Your task to perform on an android device: Check the settings for the YouTube app Image 0: 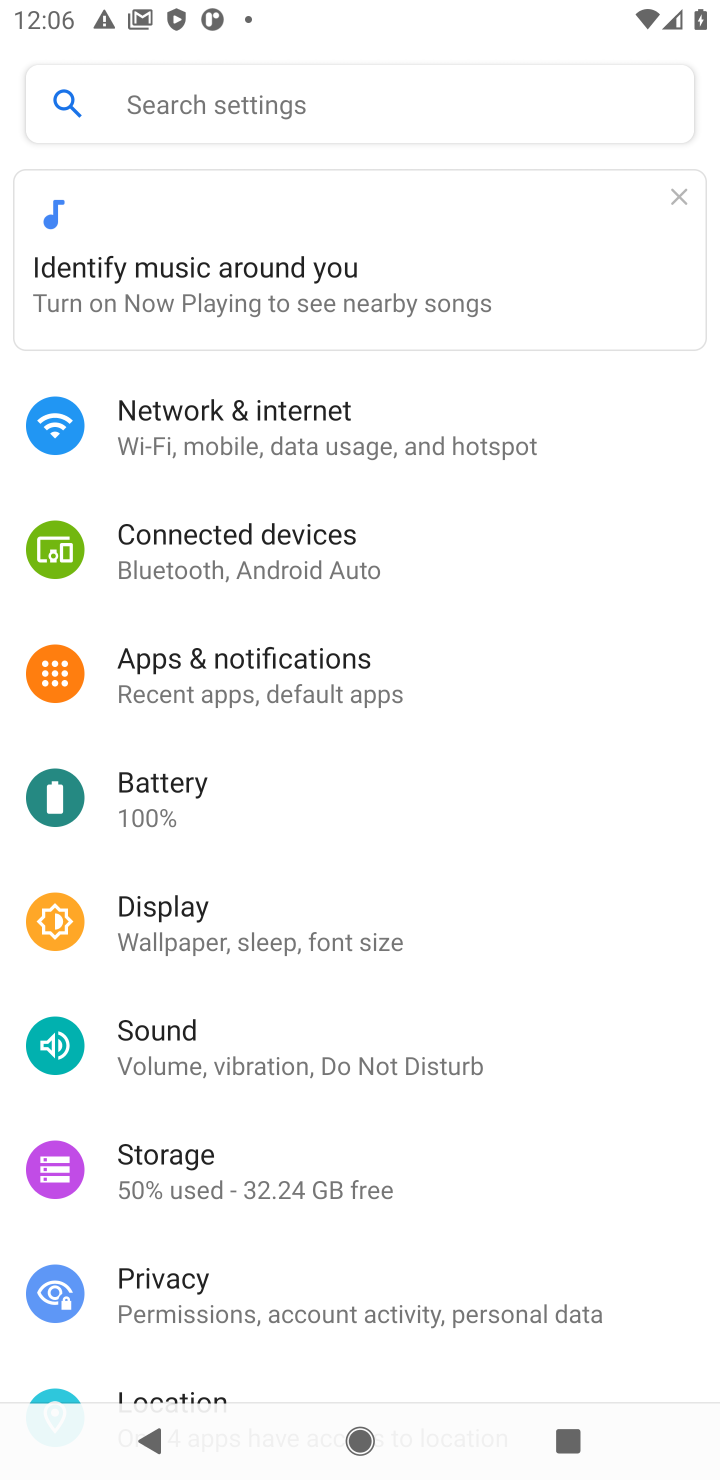
Step 0: press home button
Your task to perform on an android device: Check the settings for the YouTube app Image 1: 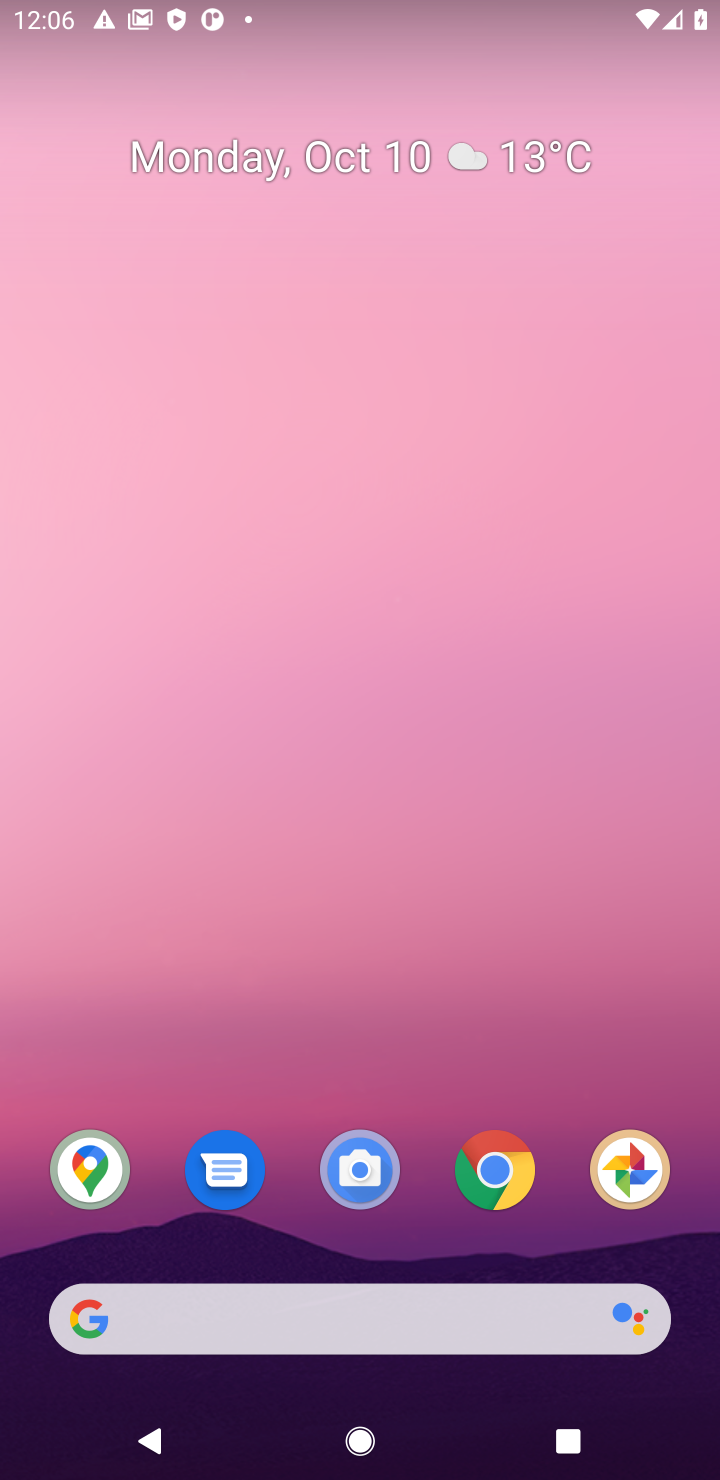
Step 1: drag from (356, 1325) to (401, 17)
Your task to perform on an android device: Check the settings for the YouTube app Image 2: 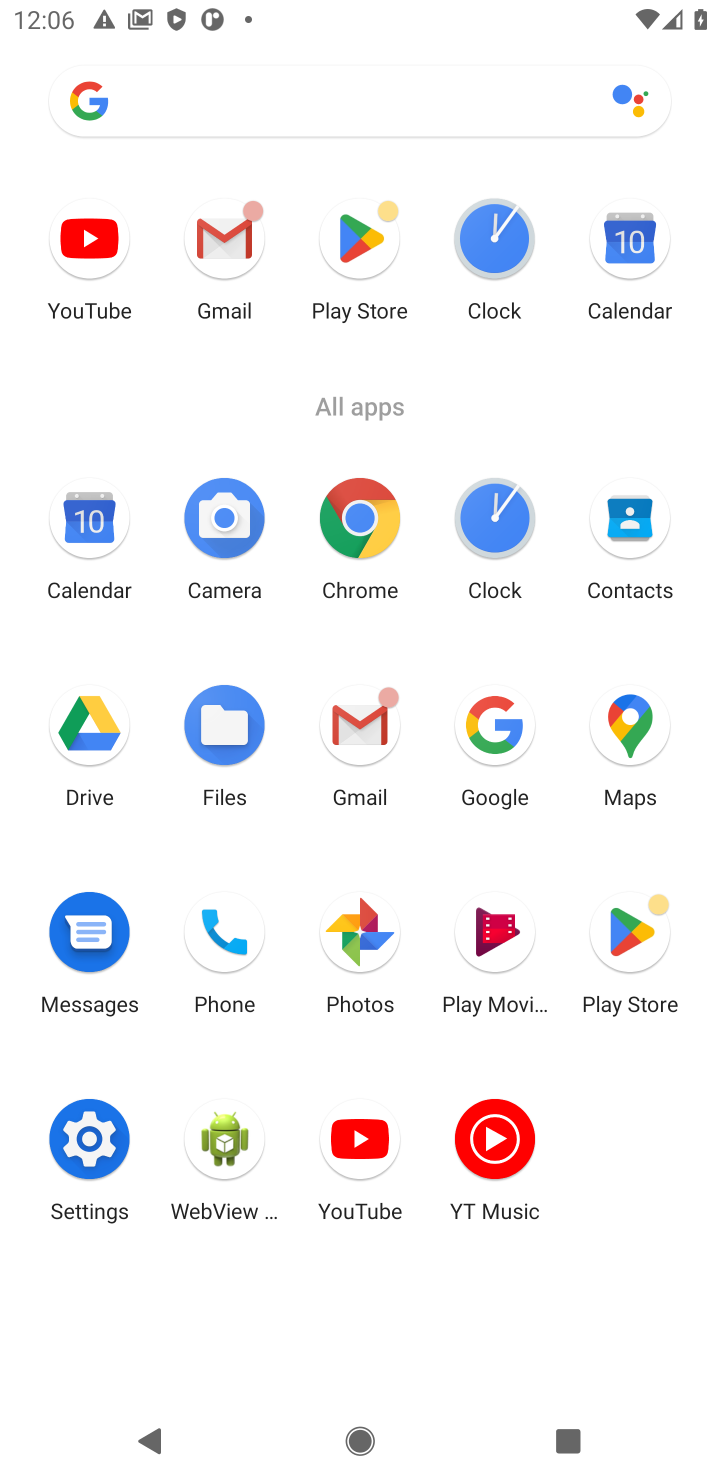
Step 2: click (91, 1139)
Your task to perform on an android device: Check the settings for the YouTube app Image 3: 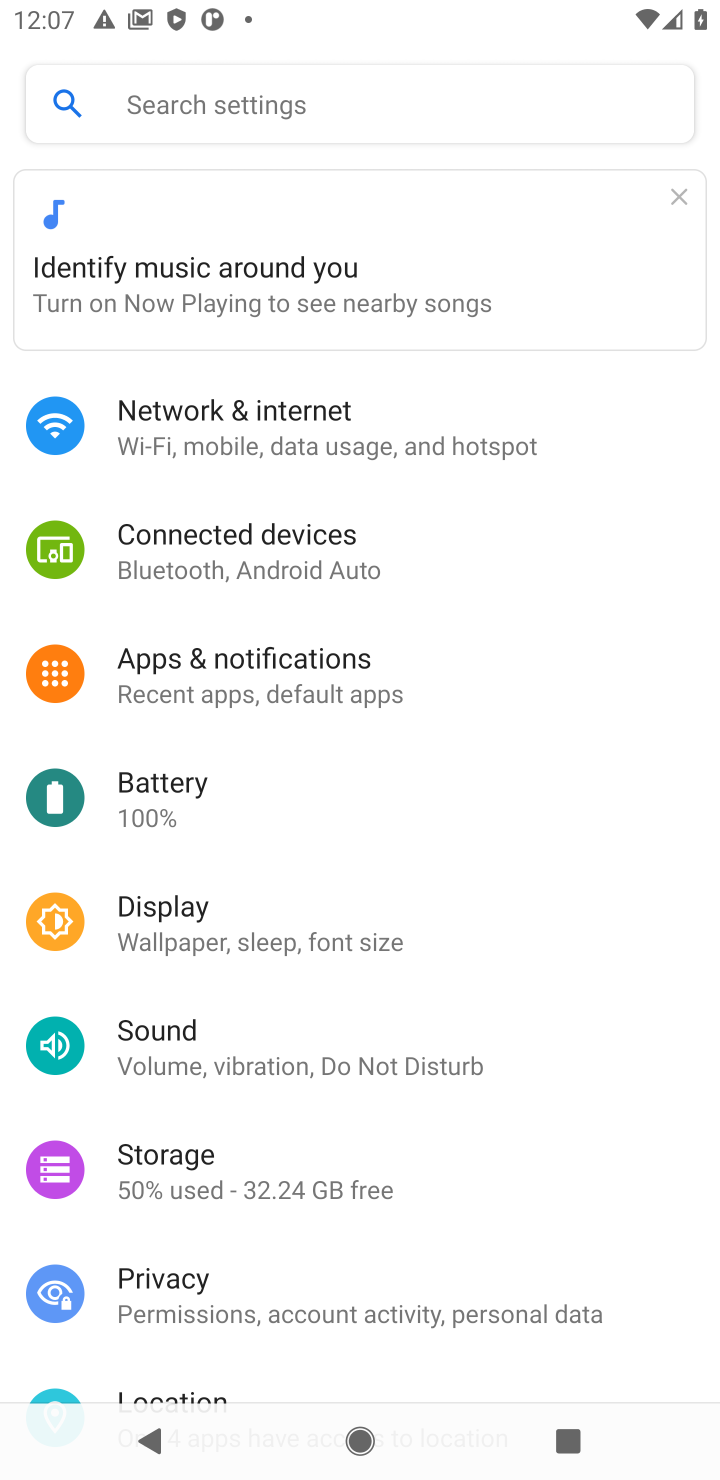
Step 3: drag from (277, 1283) to (441, 912)
Your task to perform on an android device: Check the settings for the YouTube app Image 4: 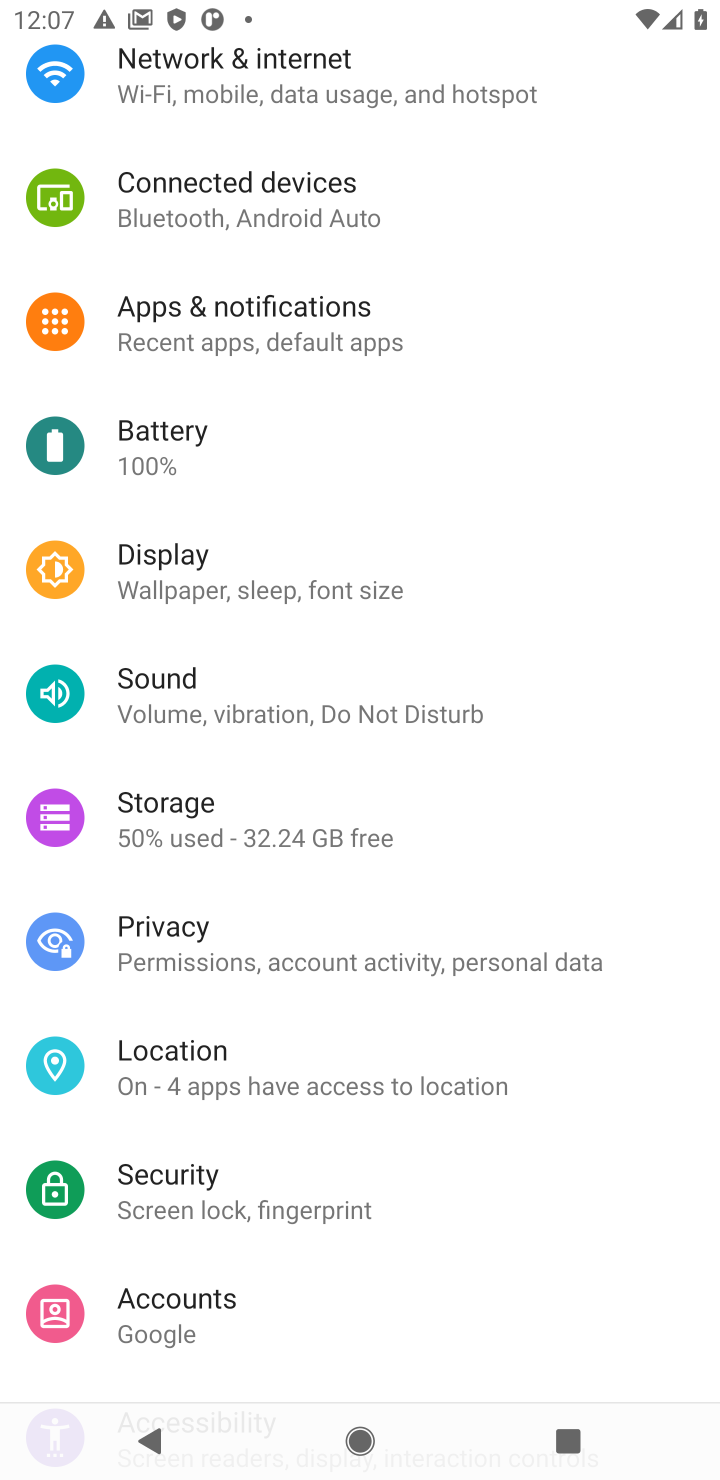
Step 4: click (305, 343)
Your task to perform on an android device: Check the settings for the YouTube app Image 5: 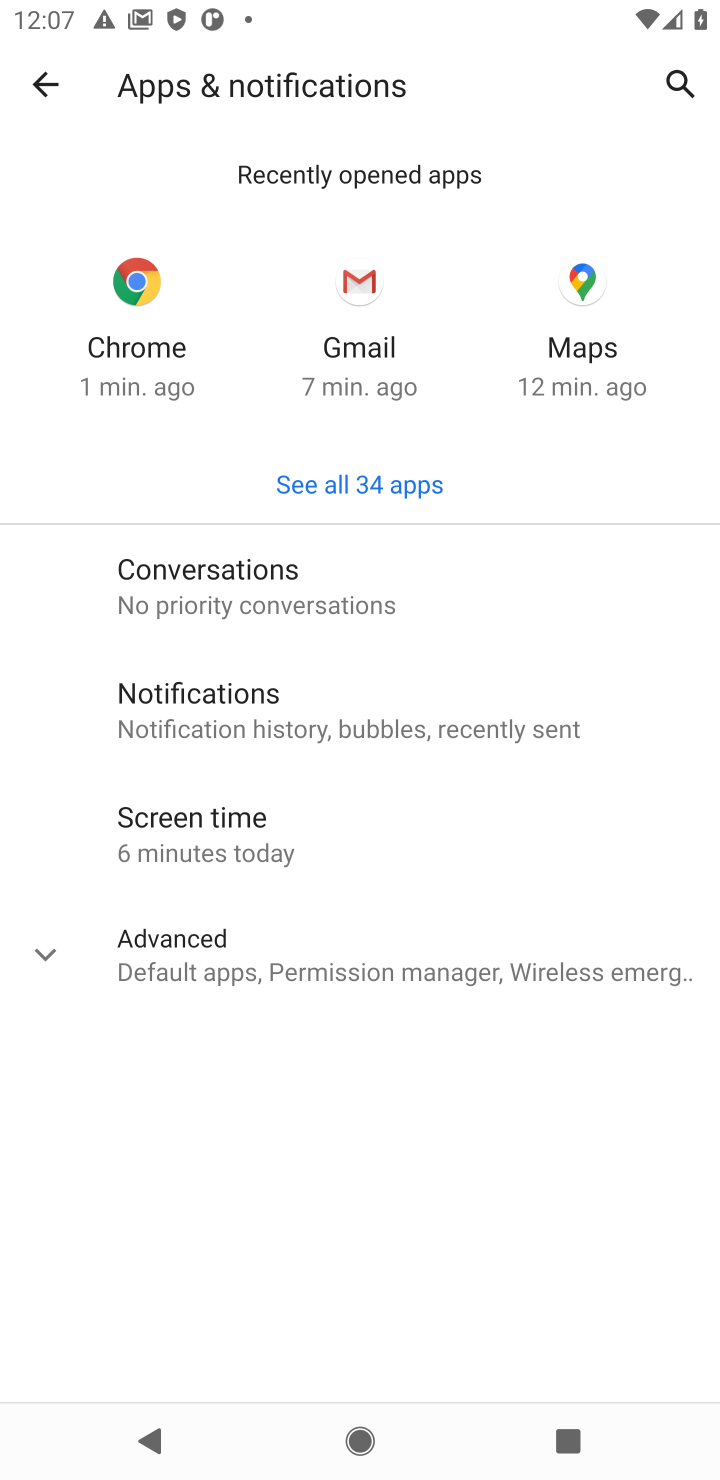
Step 5: click (389, 494)
Your task to perform on an android device: Check the settings for the YouTube app Image 6: 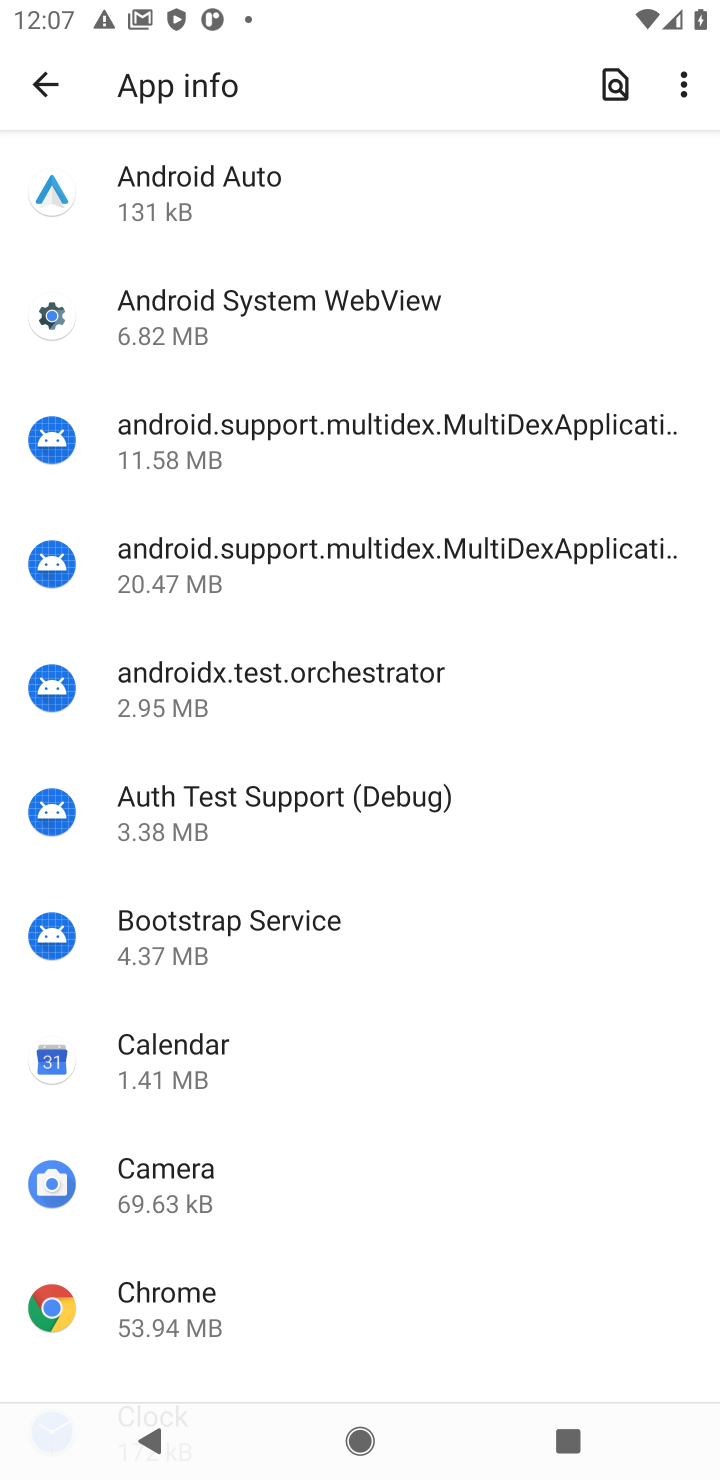
Step 6: drag from (294, 1297) to (378, 638)
Your task to perform on an android device: Check the settings for the YouTube app Image 7: 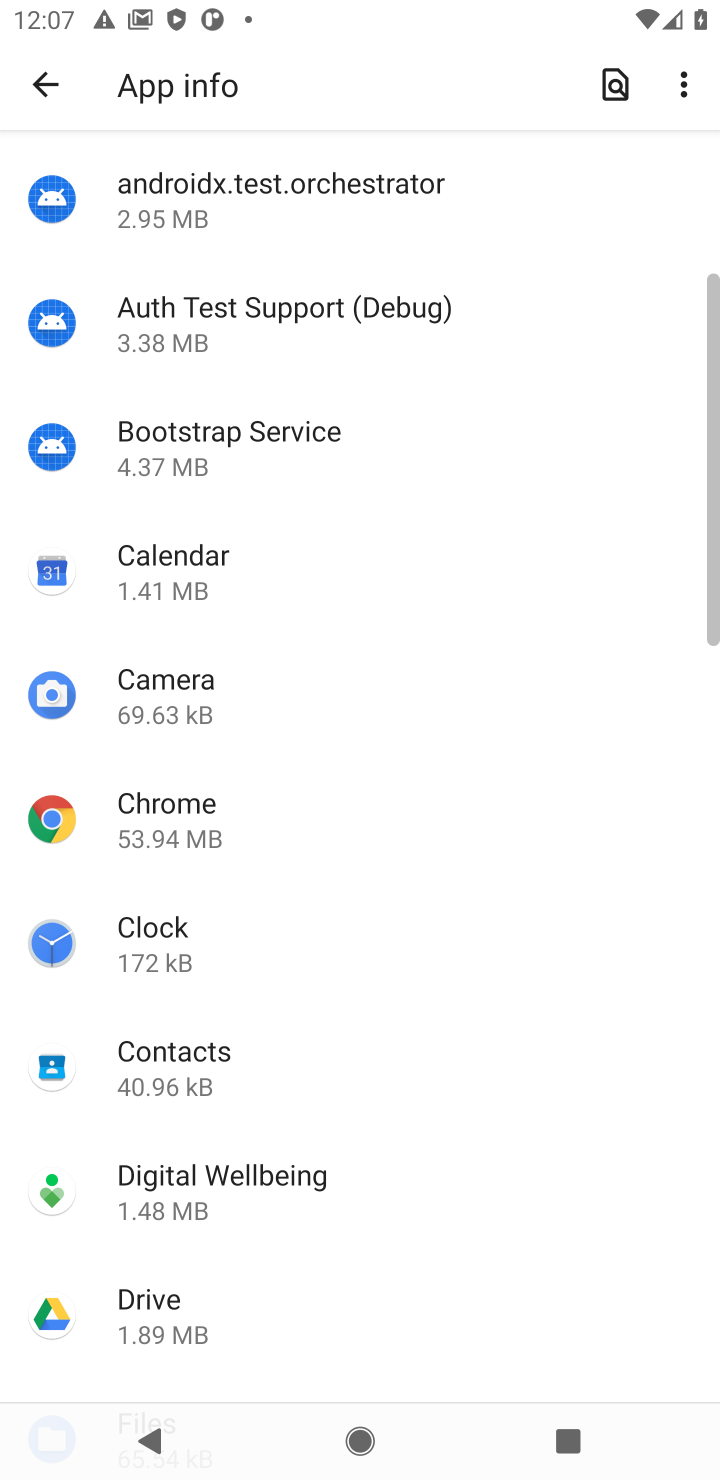
Step 7: drag from (246, 1291) to (325, 734)
Your task to perform on an android device: Check the settings for the YouTube app Image 8: 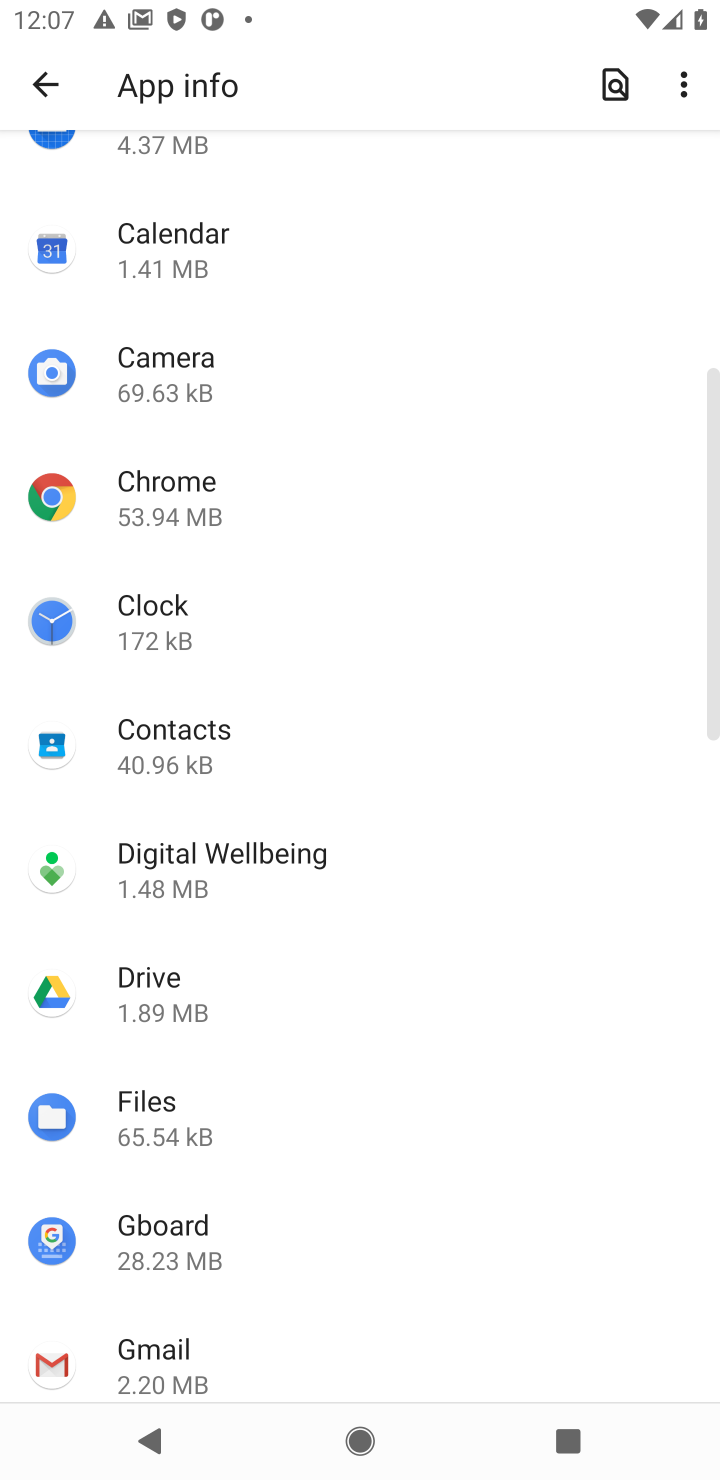
Step 8: drag from (317, 1305) to (362, 893)
Your task to perform on an android device: Check the settings for the YouTube app Image 9: 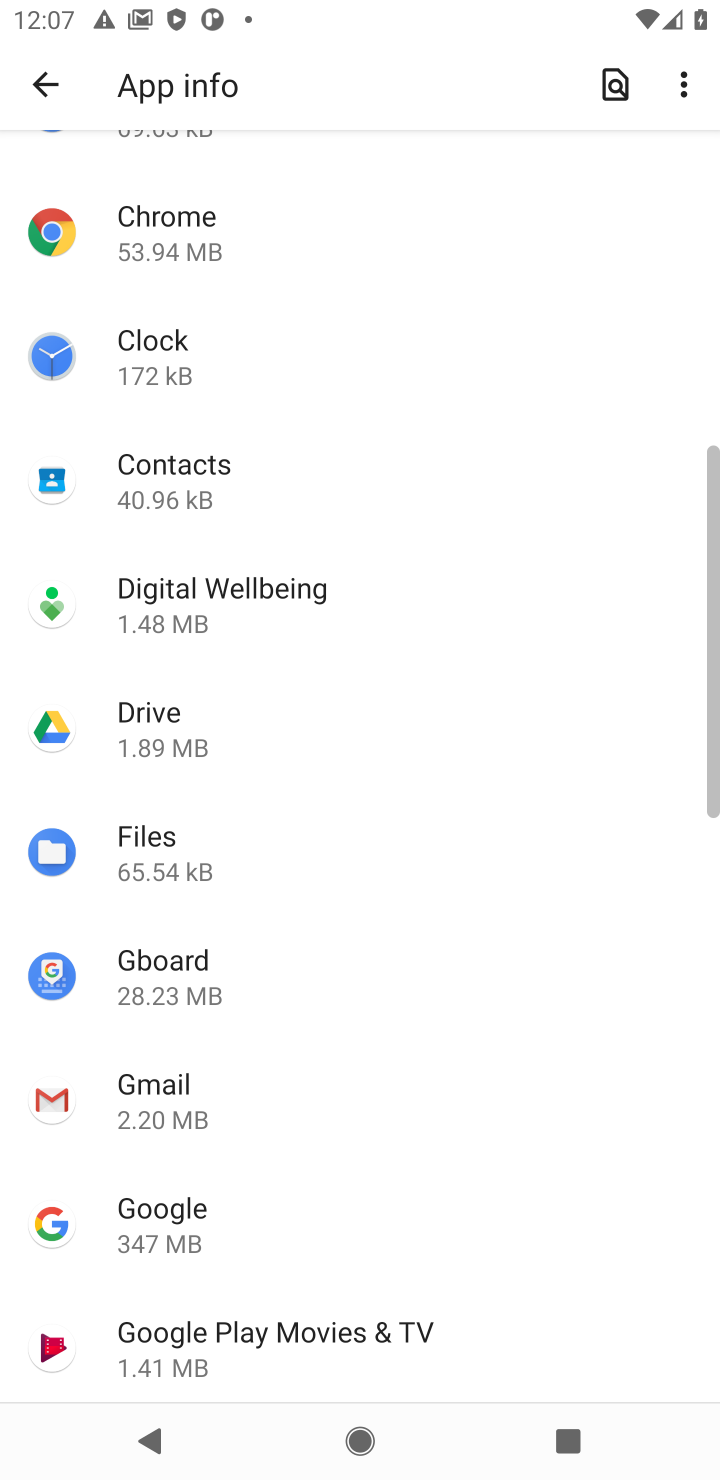
Step 9: drag from (271, 1101) to (477, 790)
Your task to perform on an android device: Check the settings for the YouTube app Image 10: 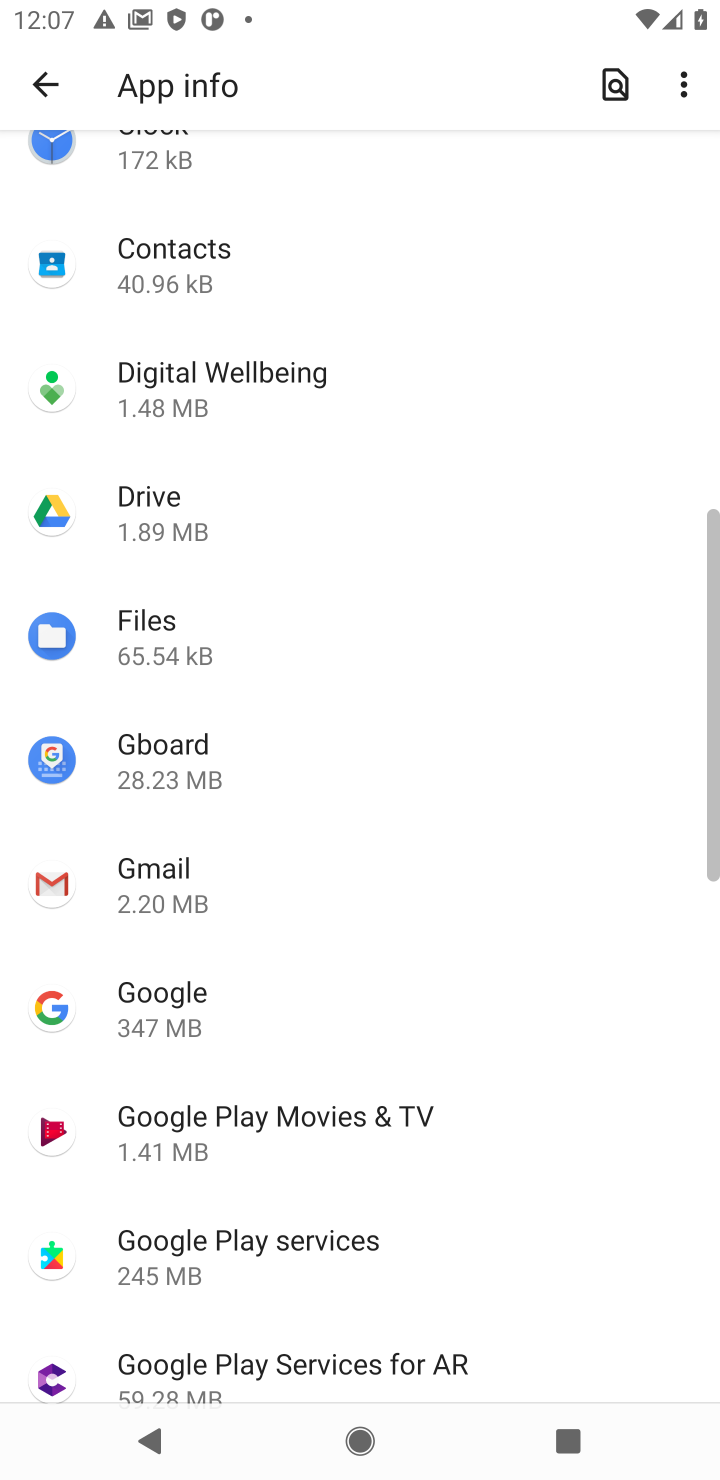
Step 10: drag from (349, 1218) to (535, 917)
Your task to perform on an android device: Check the settings for the YouTube app Image 11: 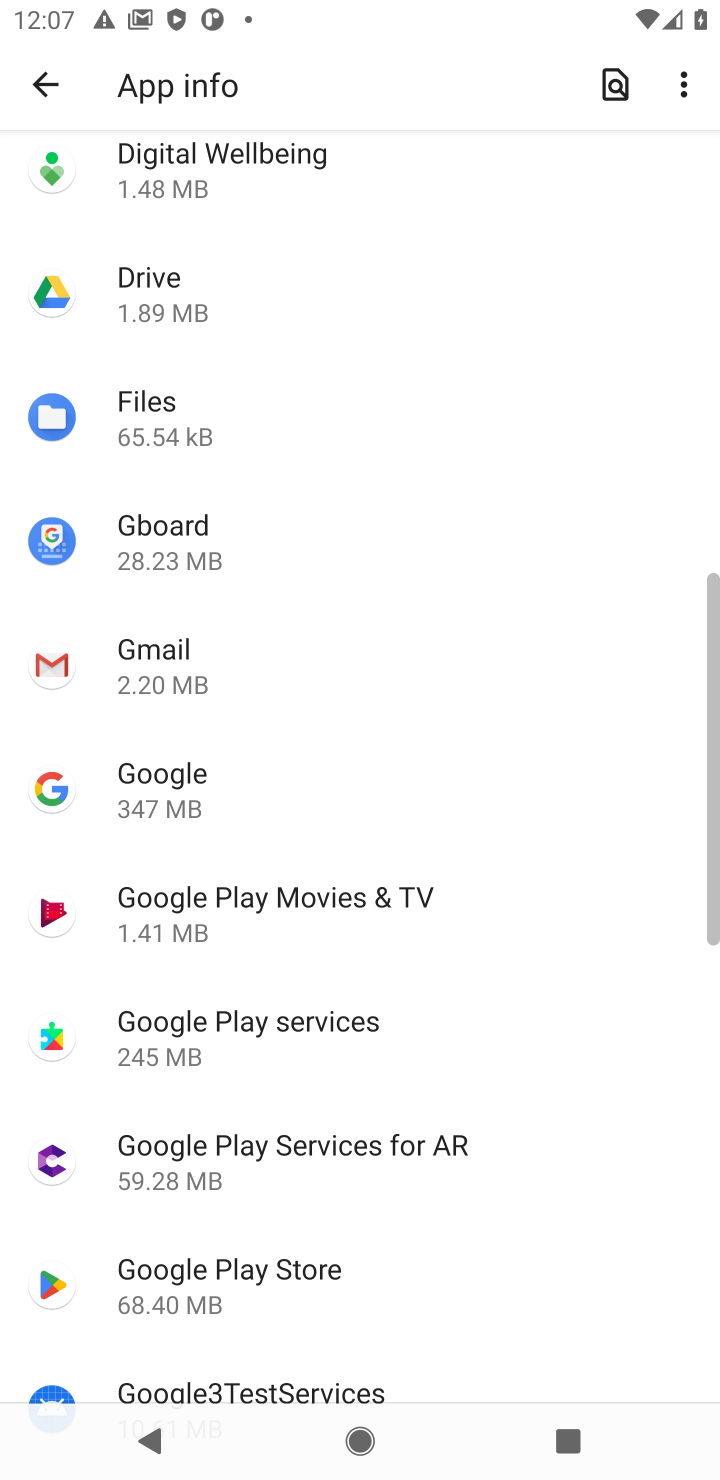
Step 11: drag from (305, 1298) to (493, 969)
Your task to perform on an android device: Check the settings for the YouTube app Image 12: 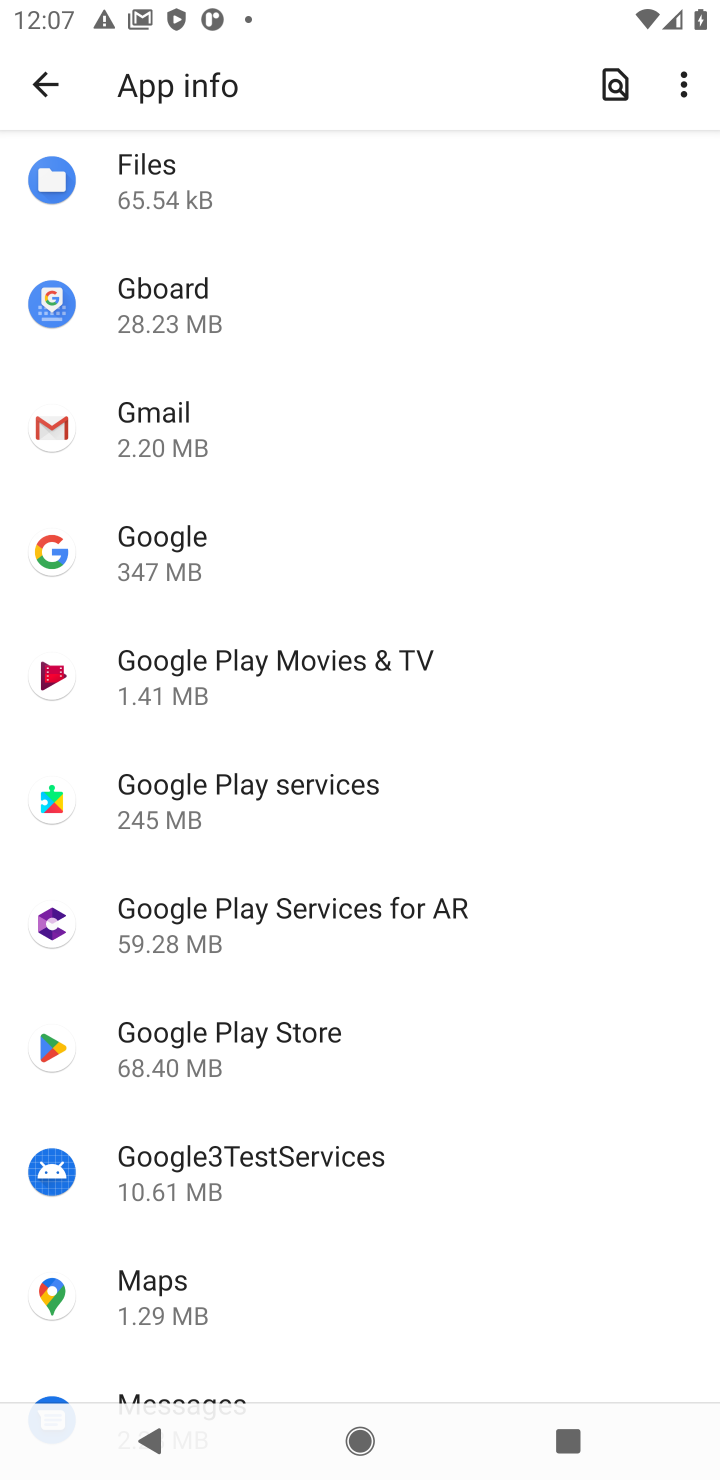
Step 12: drag from (238, 1063) to (382, 801)
Your task to perform on an android device: Check the settings for the YouTube app Image 13: 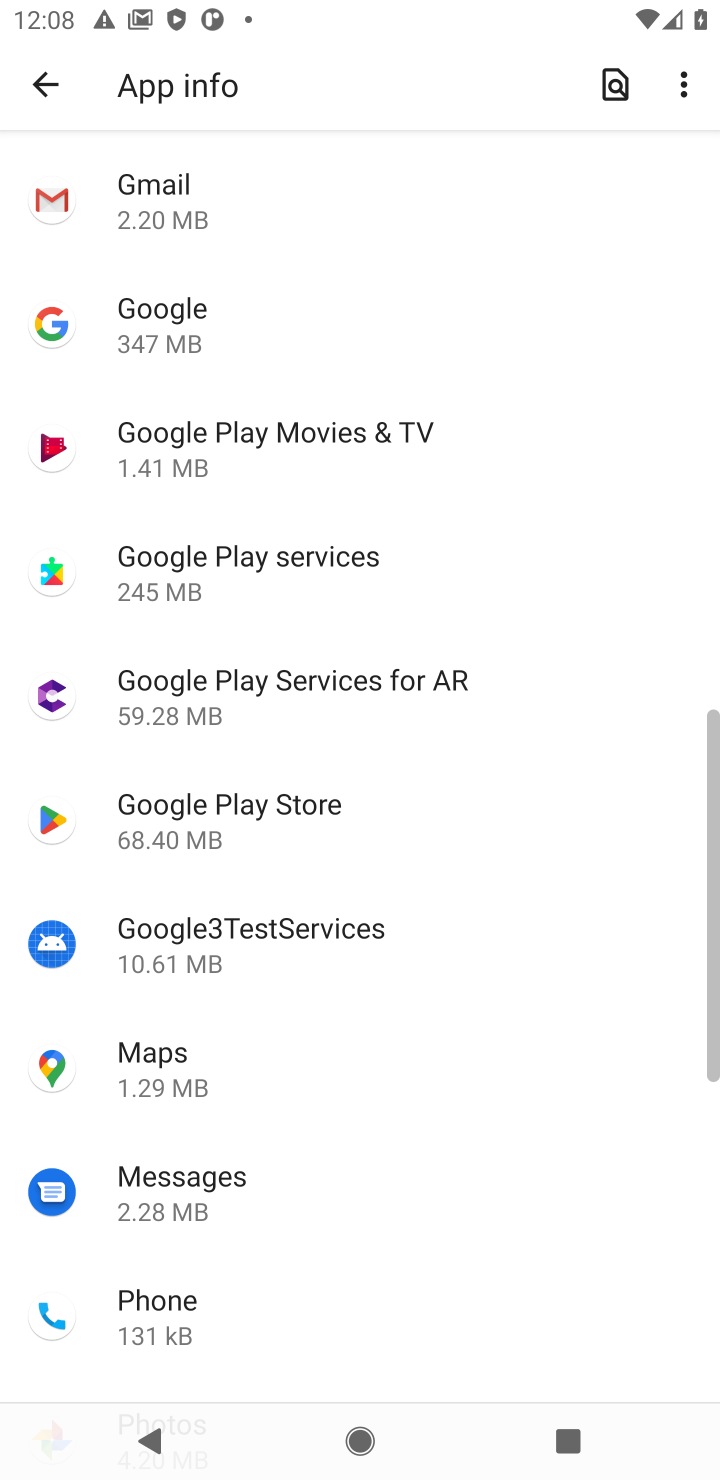
Step 13: drag from (244, 1141) to (429, 862)
Your task to perform on an android device: Check the settings for the YouTube app Image 14: 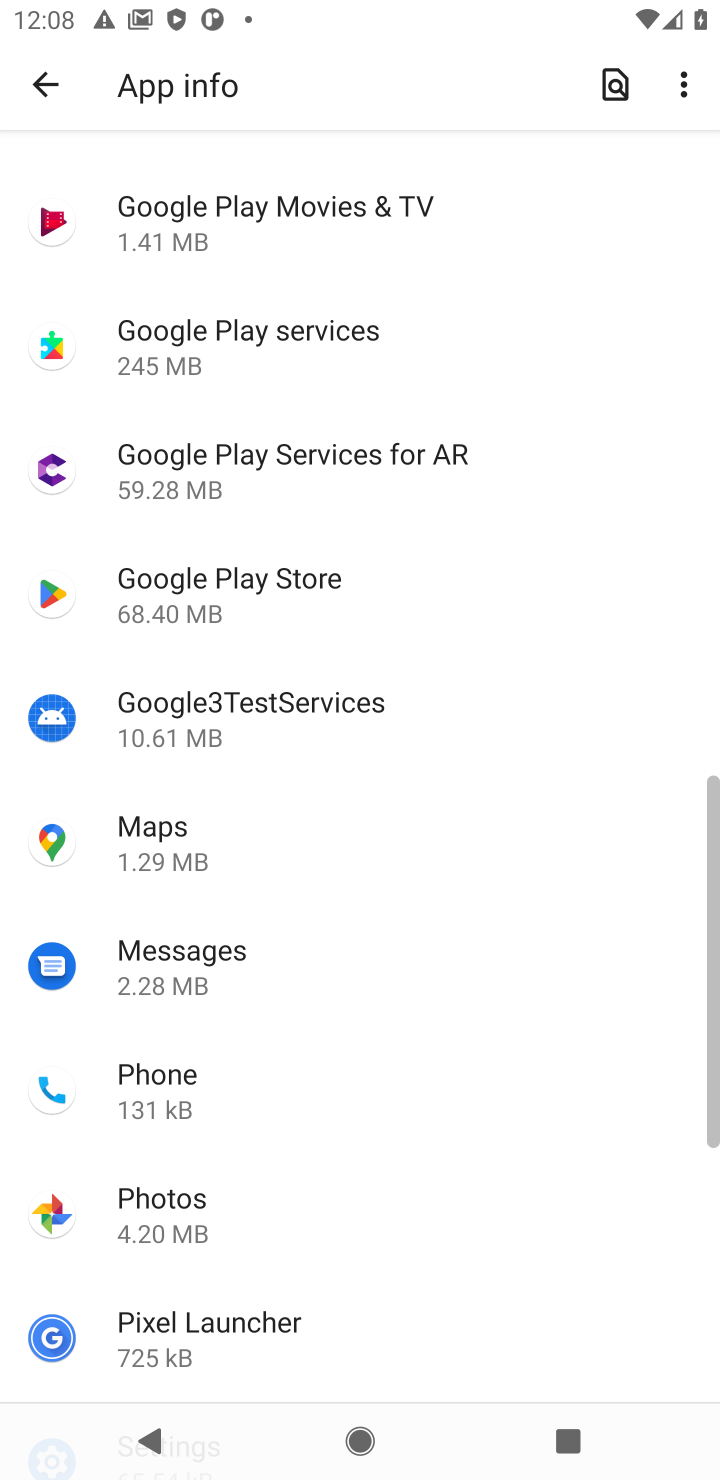
Step 14: drag from (314, 1246) to (423, 854)
Your task to perform on an android device: Check the settings for the YouTube app Image 15: 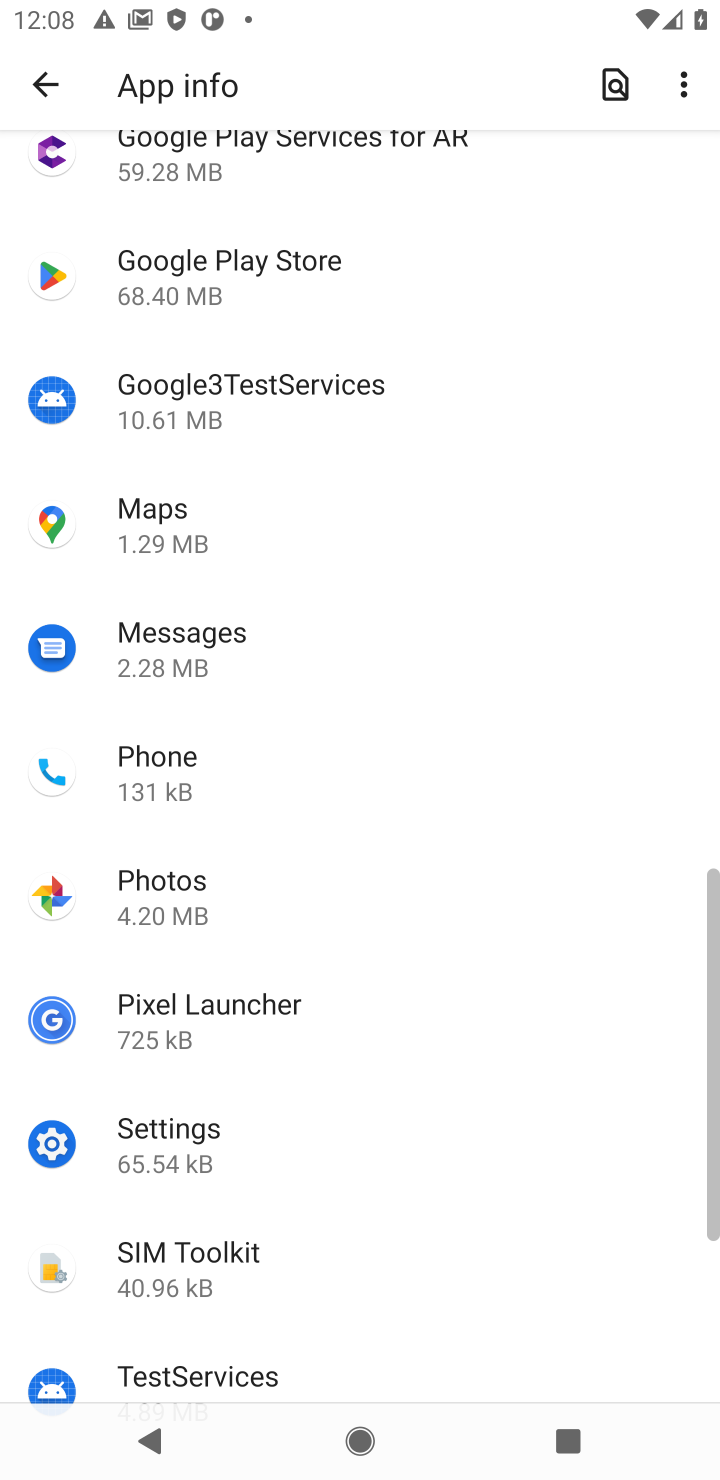
Step 15: drag from (308, 1279) to (469, 1019)
Your task to perform on an android device: Check the settings for the YouTube app Image 16: 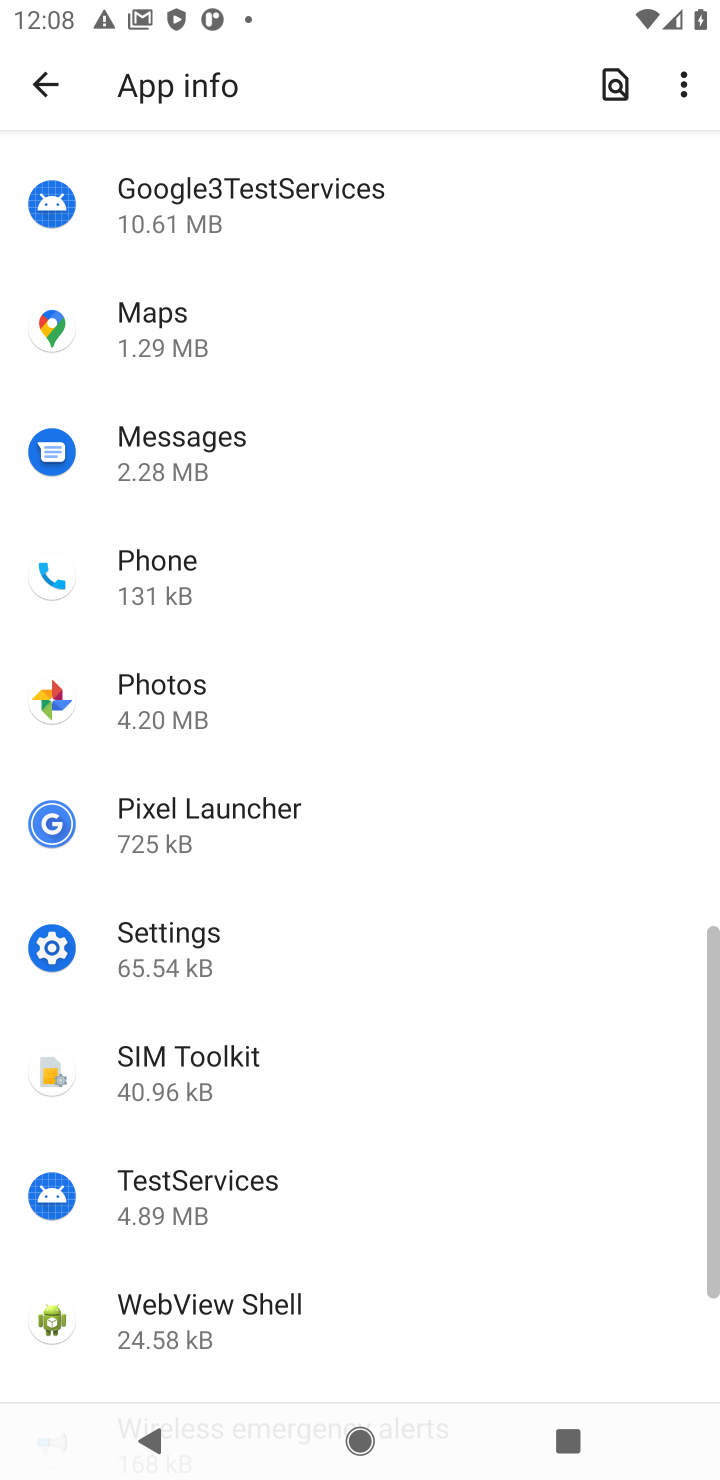
Step 16: drag from (377, 1264) to (506, 1019)
Your task to perform on an android device: Check the settings for the YouTube app Image 17: 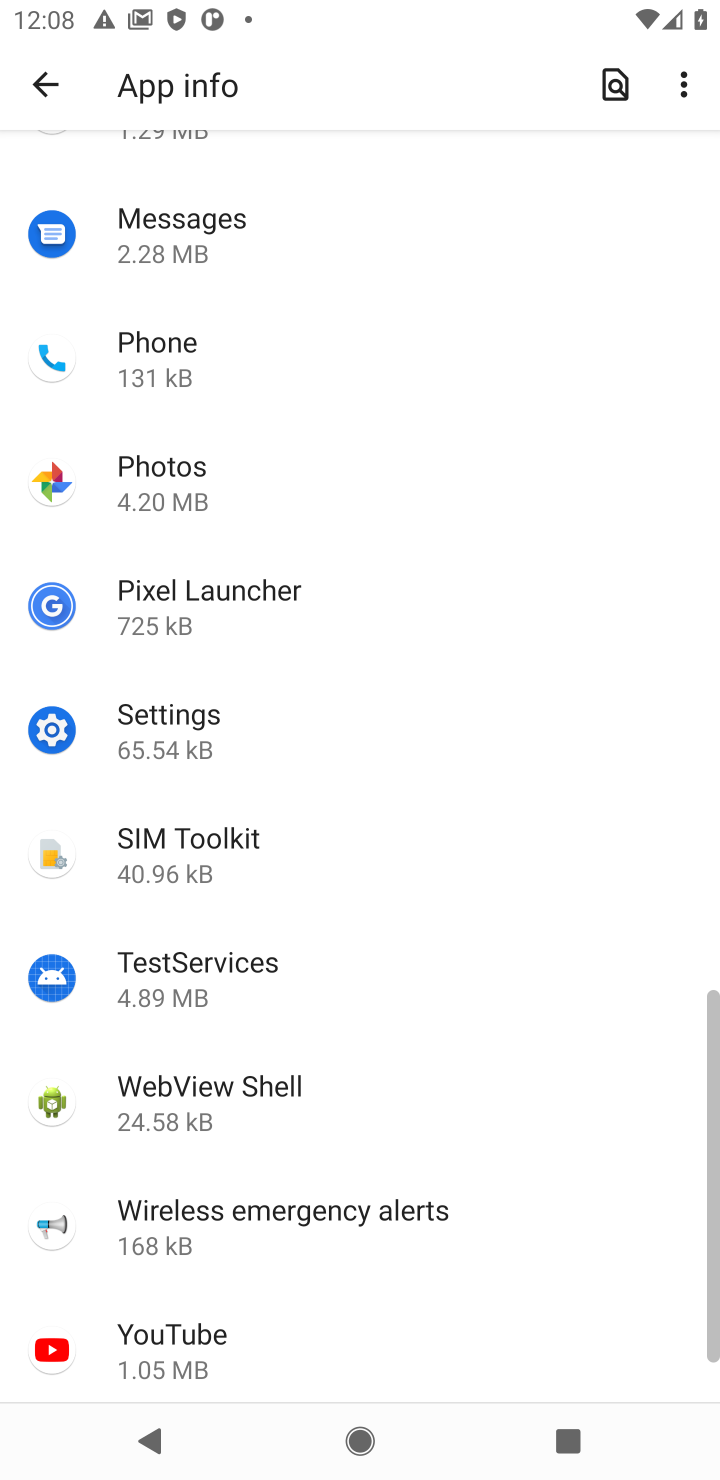
Step 17: drag from (339, 1294) to (541, 1039)
Your task to perform on an android device: Check the settings for the YouTube app Image 18: 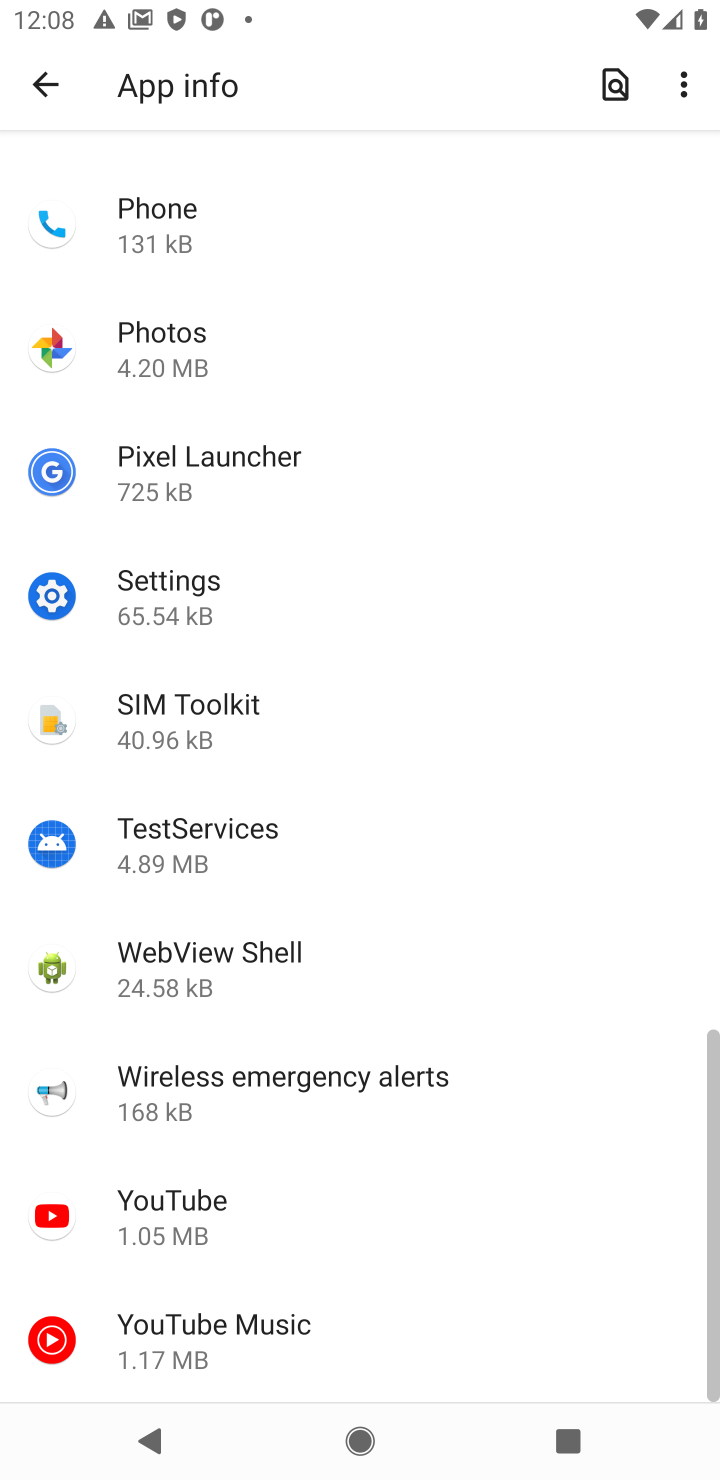
Step 18: click (179, 1204)
Your task to perform on an android device: Check the settings for the YouTube app Image 19: 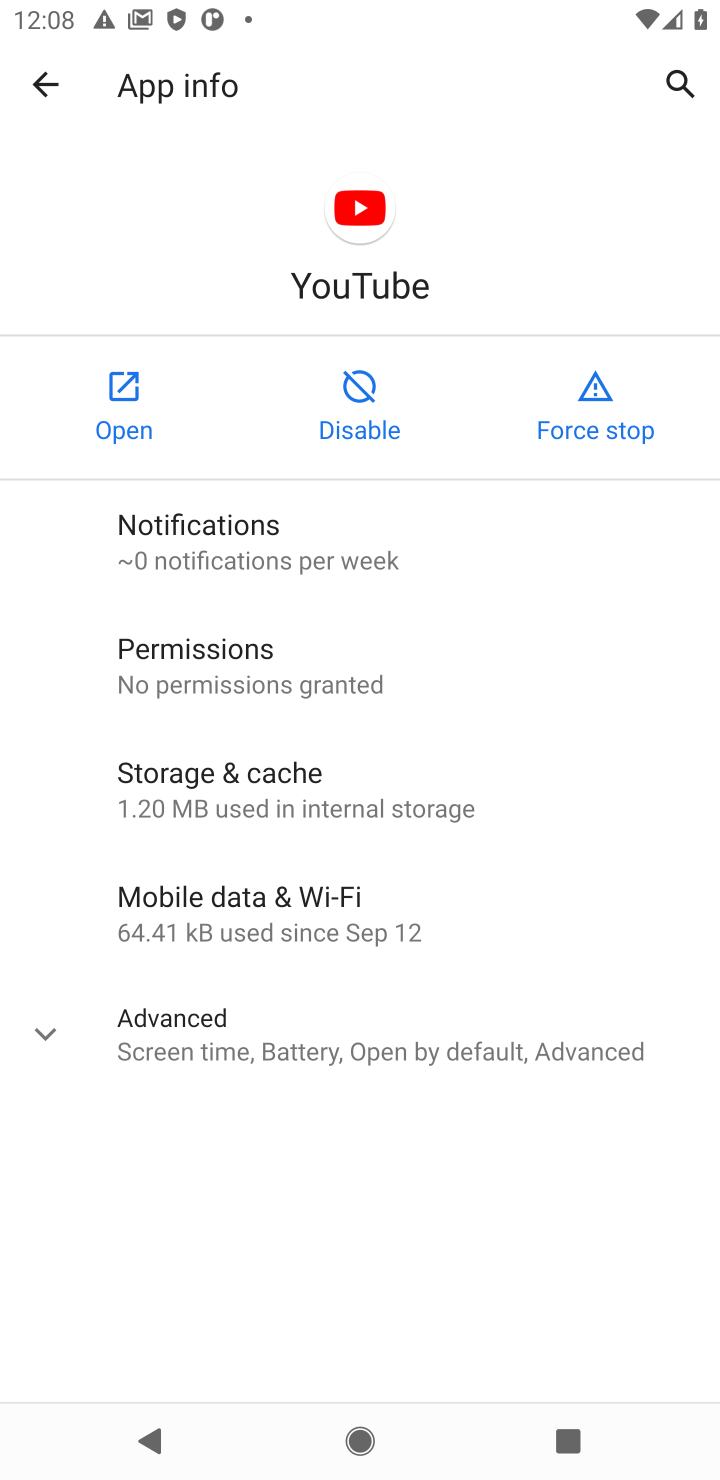
Step 19: click (323, 1069)
Your task to perform on an android device: Check the settings for the YouTube app Image 20: 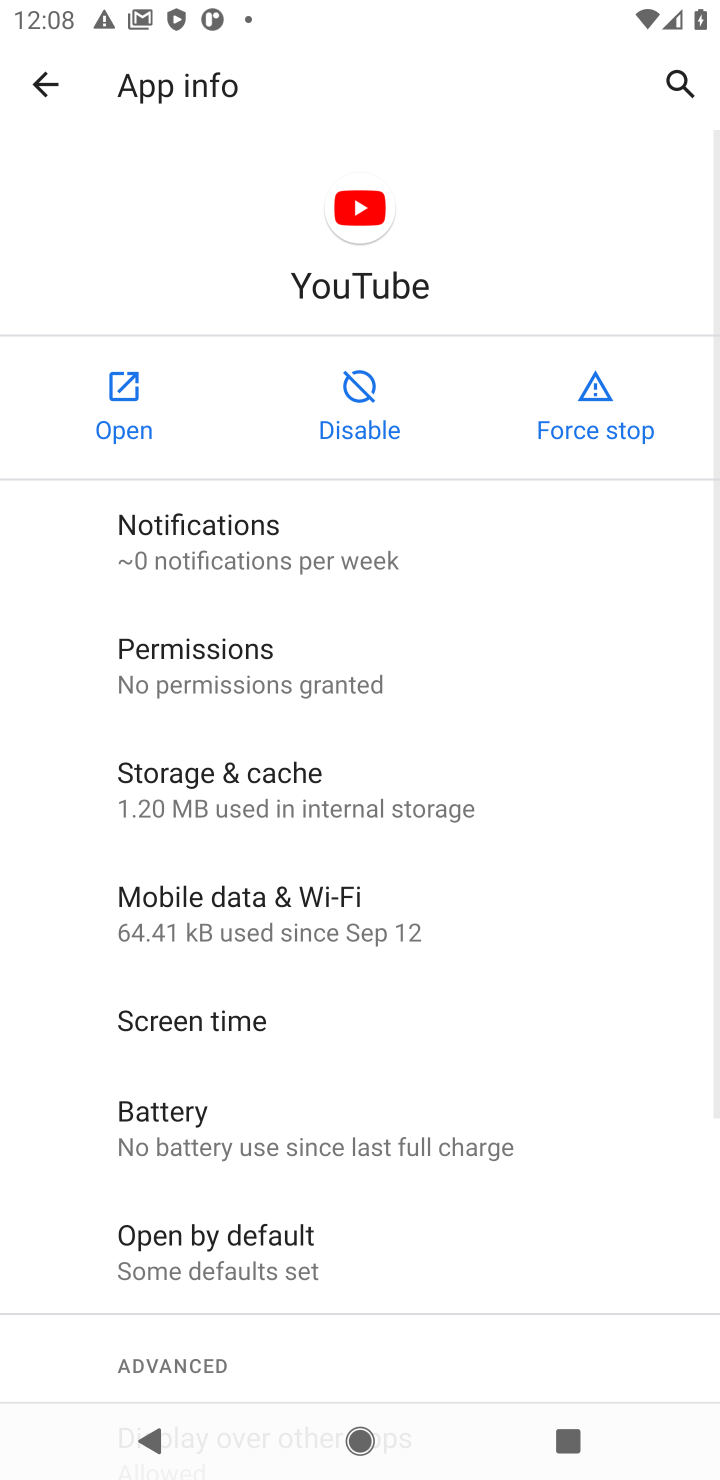
Step 20: task complete